Your task to perform on an android device: Add "razer kraken" to the cart on ebay.com, then select checkout. Image 0: 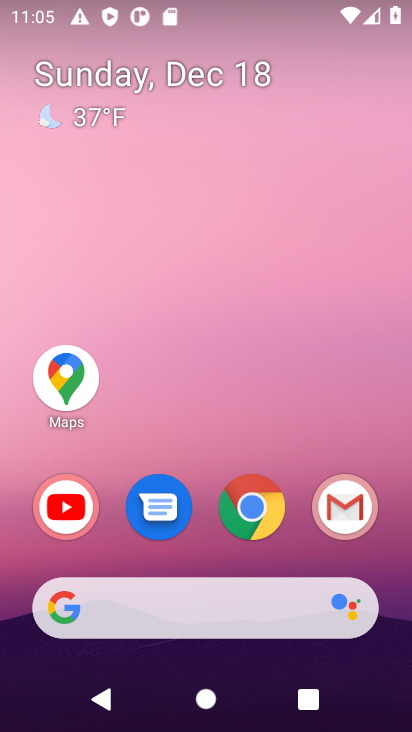
Step 0: click (249, 517)
Your task to perform on an android device: Add "razer kraken" to the cart on ebay.com, then select checkout. Image 1: 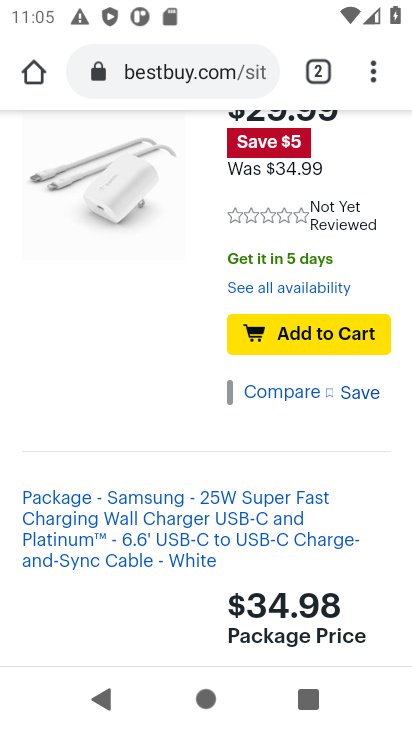
Step 1: click (142, 77)
Your task to perform on an android device: Add "razer kraken" to the cart on ebay.com, then select checkout. Image 2: 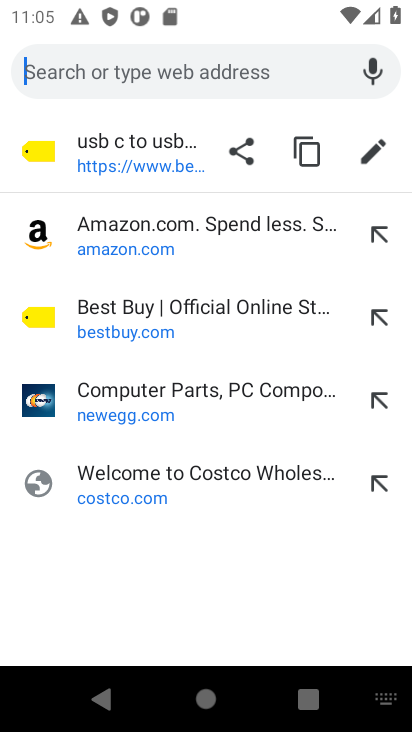
Step 2: type "ebay.com"
Your task to perform on an android device: Add "razer kraken" to the cart on ebay.com, then select checkout. Image 3: 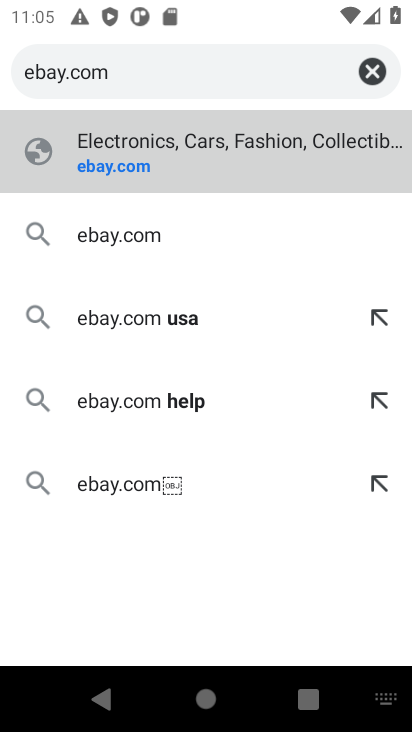
Step 3: click (121, 175)
Your task to perform on an android device: Add "razer kraken" to the cart on ebay.com, then select checkout. Image 4: 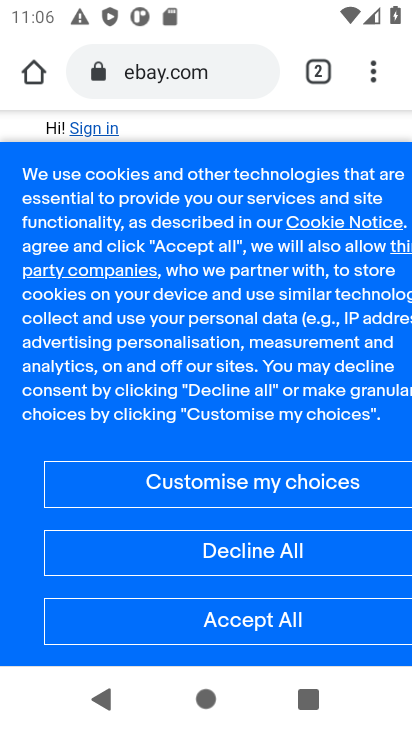
Step 4: click (215, 624)
Your task to perform on an android device: Add "razer kraken" to the cart on ebay.com, then select checkout. Image 5: 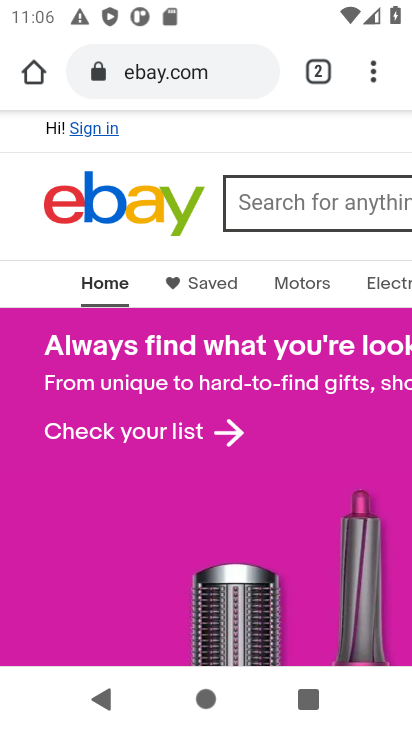
Step 5: click (289, 201)
Your task to perform on an android device: Add "razer kraken" to the cart on ebay.com, then select checkout. Image 6: 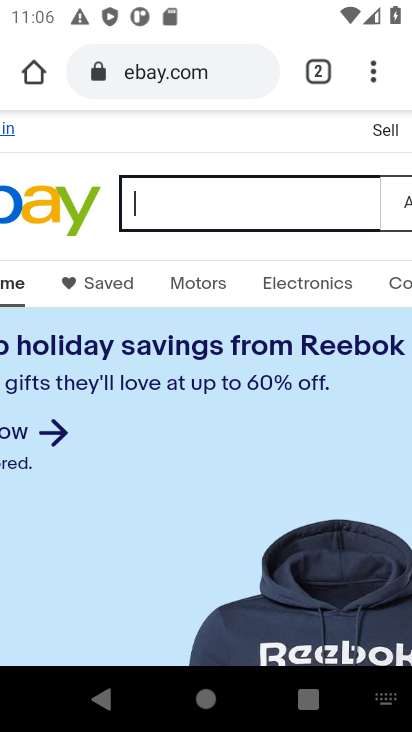
Step 6: type "razer kraken"
Your task to perform on an android device: Add "razer kraken" to the cart on ebay.com, then select checkout. Image 7: 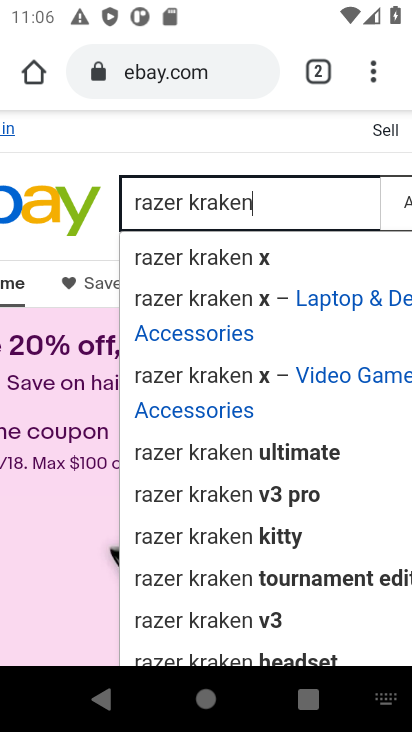
Step 7: click (201, 258)
Your task to perform on an android device: Add "razer kraken" to the cart on ebay.com, then select checkout. Image 8: 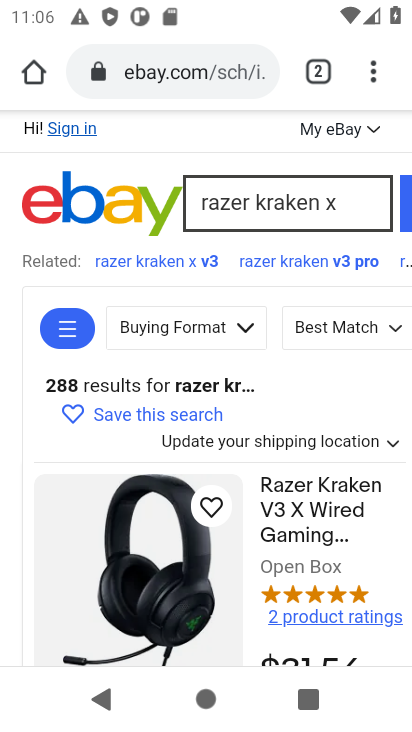
Step 8: click (309, 528)
Your task to perform on an android device: Add "razer kraken" to the cart on ebay.com, then select checkout. Image 9: 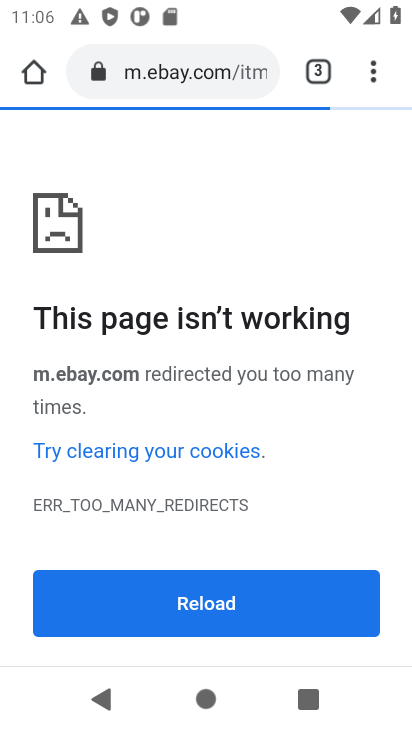
Step 9: task complete